Your task to perform on an android device: Search for seafood restaurants on Google Maps Image 0: 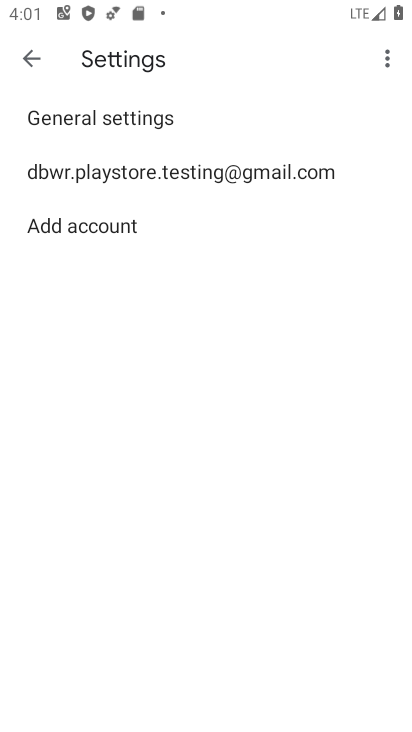
Step 0: press home button
Your task to perform on an android device: Search for seafood restaurants on Google Maps Image 1: 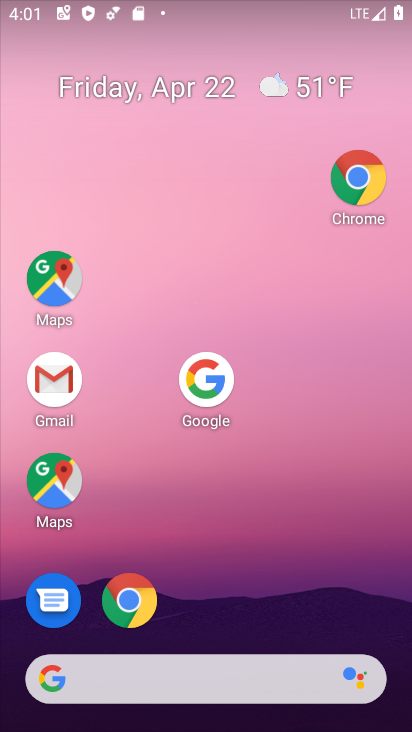
Step 1: drag from (285, 592) to (179, 66)
Your task to perform on an android device: Search for seafood restaurants on Google Maps Image 2: 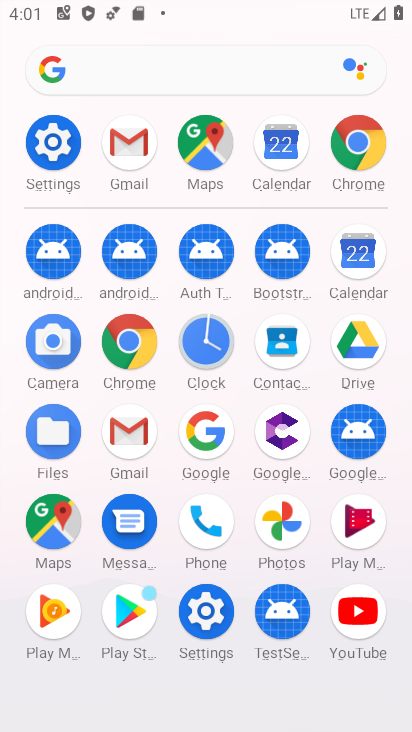
Step 2: drag from (181, 179) to (164, 0)
Your task to perform on an android device: Search for seafood restaurants on Google Maps Image 3: 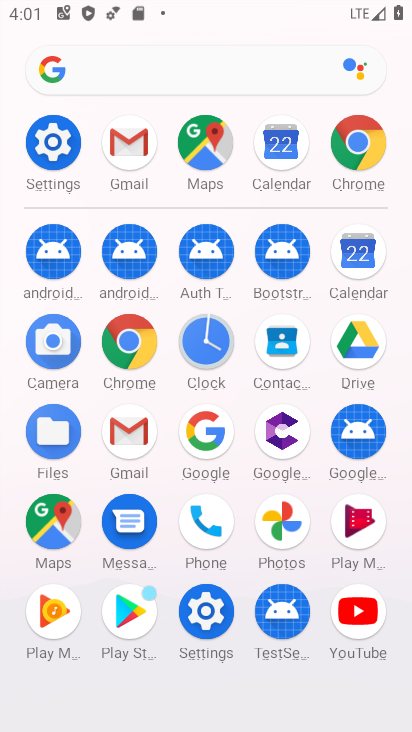
Step 3: click (34, 154)
Your task to perform on an android device: Search for seafood restaurants on Google Maps Image 4: 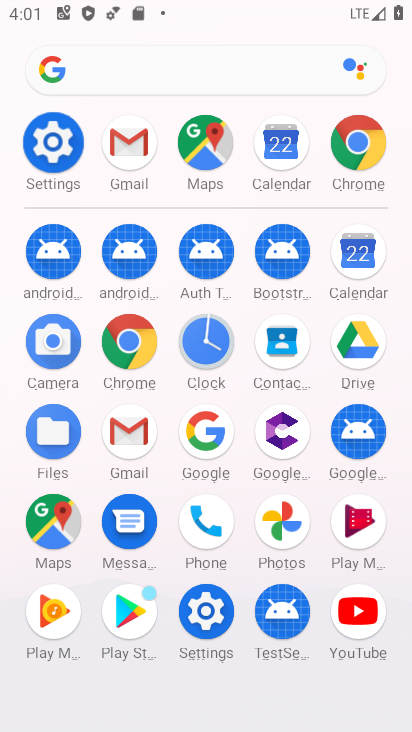
Step 4: click (34, 153)
Your task to perform on an android device: Search for seafood restaurants on Google Maps Image 5: 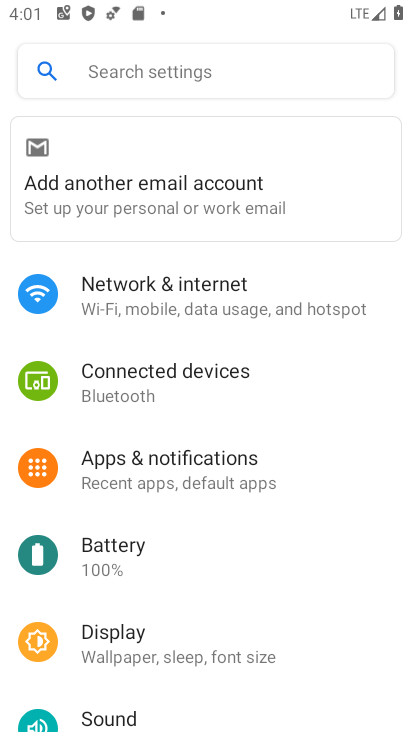
Step 5: press home button
Your task to perform on an android device: Search for seafood restaurants on Google Maps Image 6: 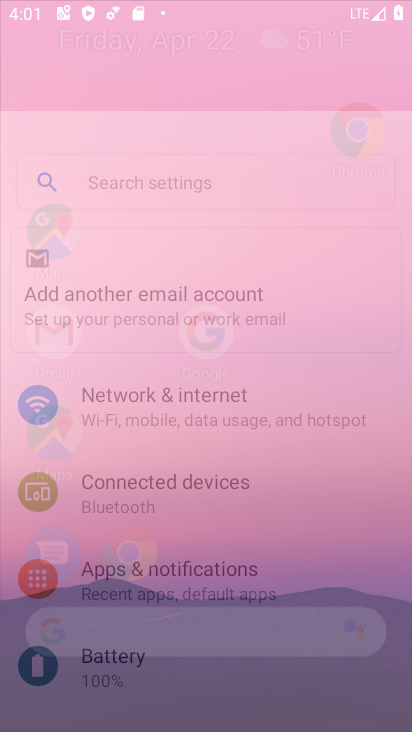
Step 6: press home button
Your task to perform on an android device: Search for seafood restaurants on Google Maps Image 7: 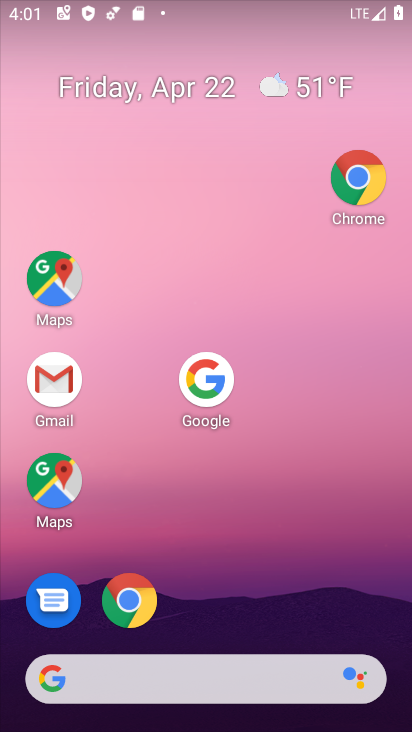
Step 7: drag from (230, 519) to (119, 102)
Your task to perform on an android device: Search for seafood restaurants on Google Maps Image 8: 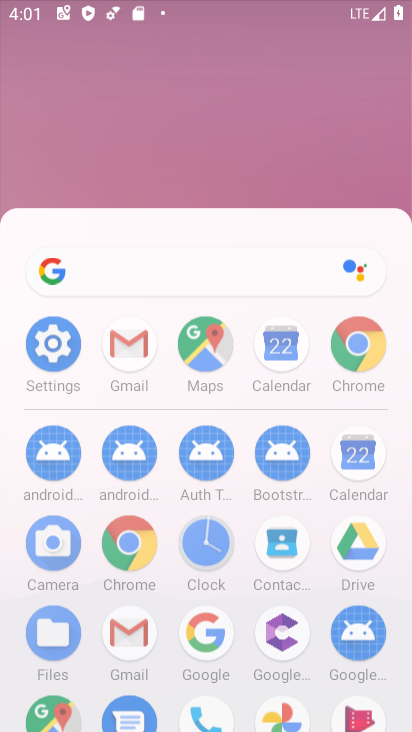
Step 8: drag from (167, 373) to (105, 38)
Your task to perform on an android device: Search for seafood restaurants on Google Maps Image 9: 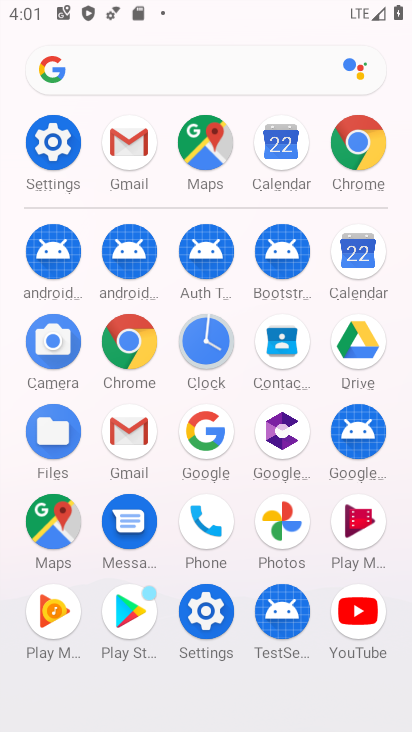
Step 9: click (209, 137)
Your task to perform on an android device: Search for seafood restaurants on Google Maps Image 10: 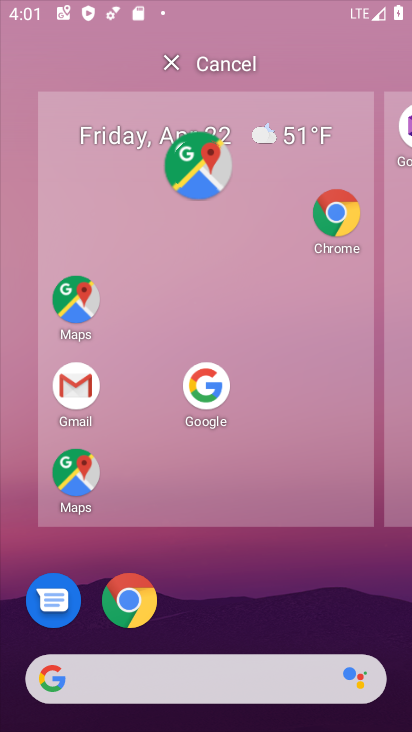
Step 10: click (199, 158)
Your task to perform on an android device: Search for seafood restaurants on Google Maps Image 11: 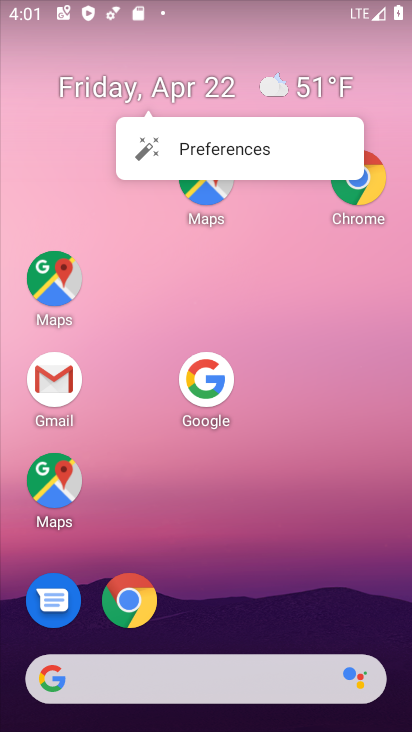
Step 11: drag from (304, 561) to (126, 6)
Your task to perform on an android device: Search for seafood restaurants on Google Maps Image 12: 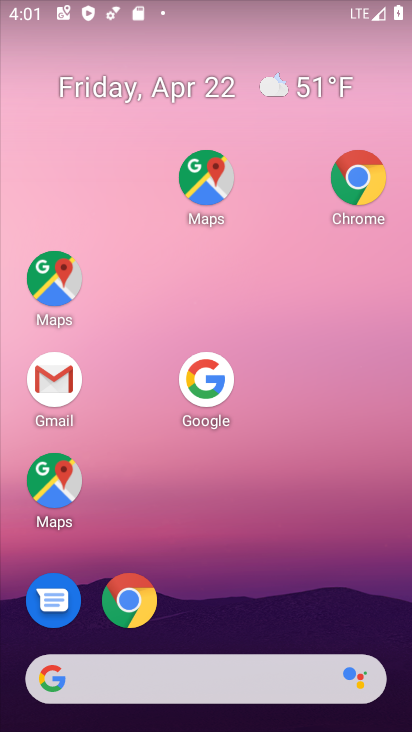
Step 12: drag from (245, 420) to (126, 39)
Your task to perform on an android device: Search for seafood restaurants on Google Maps Image 13: 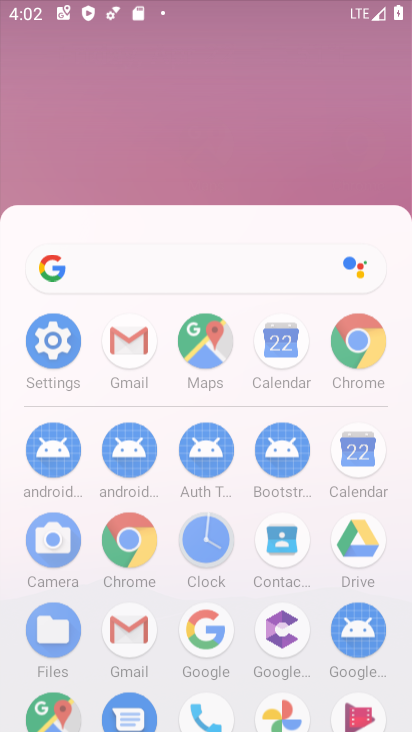
Step 13: drag from (231, 499) to (170, 4)
Your task to perform on an android device: Search for seafood restaurants on Google Maps Image 14: 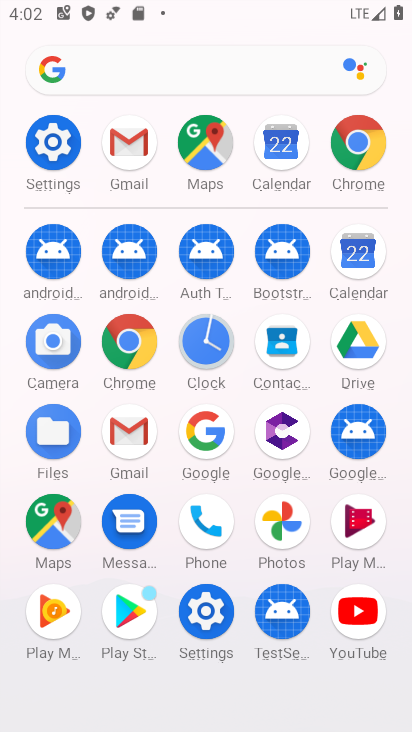
Step 14: click (193, 157)
Your task to perform on an android device: Search for seafood restaurants on Google Maps Image 15: 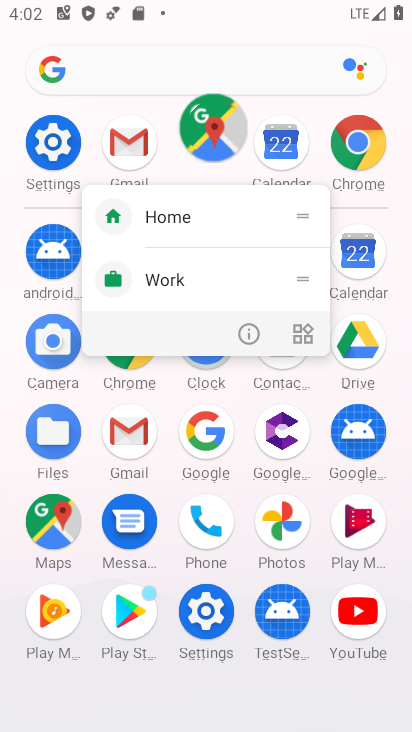
Step 15: click (201, 142)
Your task to perform on an android device: Search for seafood restaurants on Google Maps Image 16: 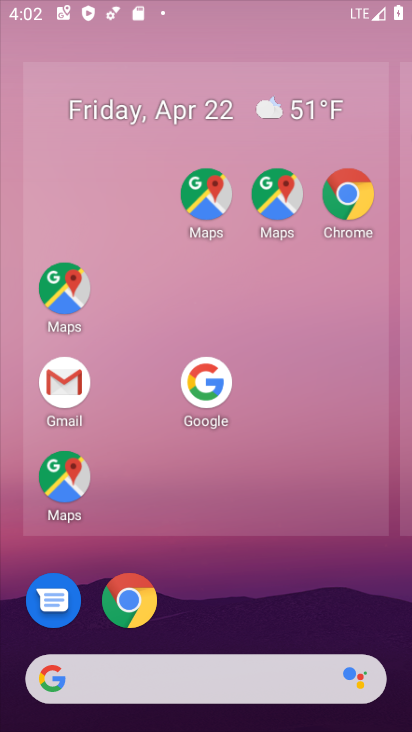
Step 16: click (200, 145)
Your task to perform on an android device: Search for seafood restaurants on Google Maps Image 17: 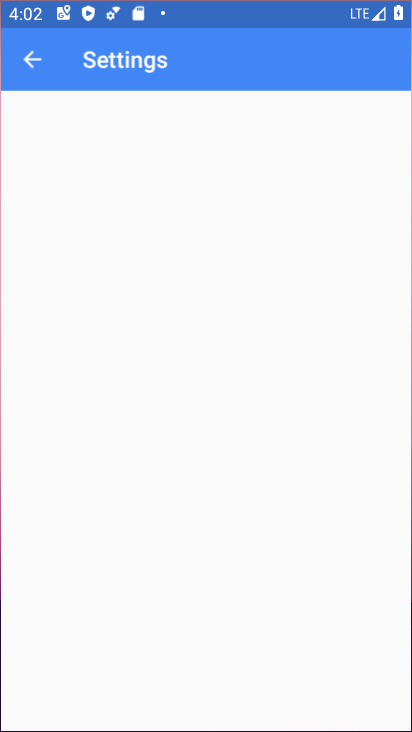
Step 17: drag from (284, 567) to (158, 8)
Your task to perform on an android device: Search for seafood restaurants on Google Maps Image 18: 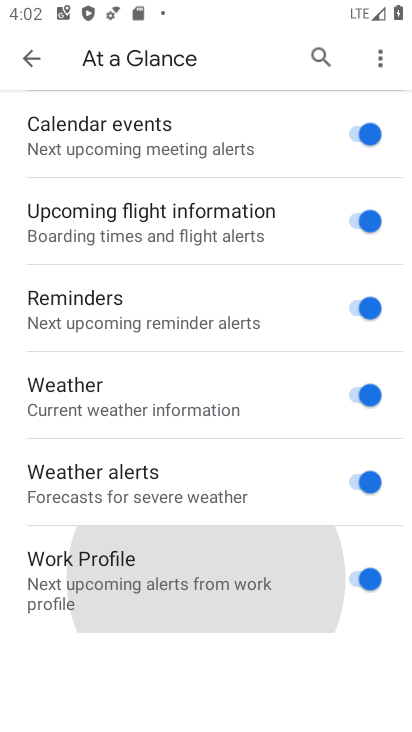
Step 18: drag from (351, 483) to (111, 7)
Your task to perform on an android device: Search for seafood restaurants on Google Maps Image 19: 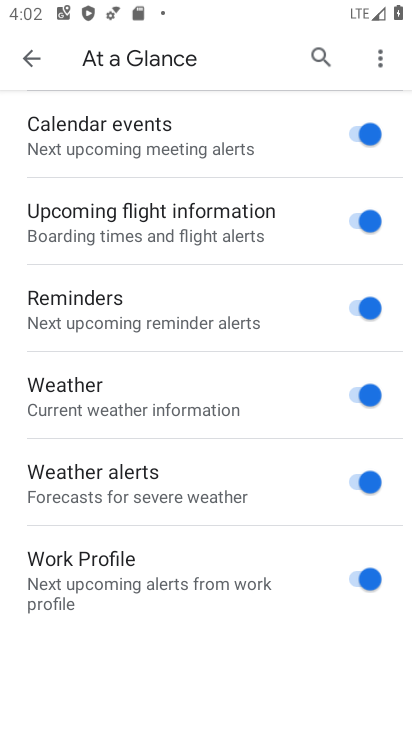
Step 19: click (26, 49)
Your task to perform on an android device: Search for seafood restaurants on Google Maps Image 20: 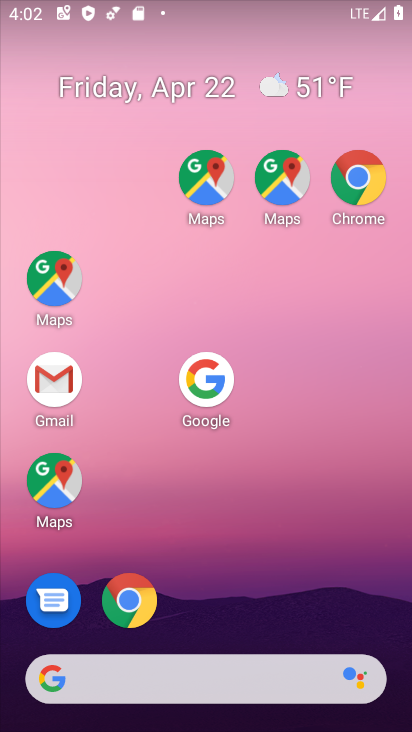
Step 20: drag from (292, 595) to (219, 42)
Your task to perform on an android device: Search for seafood restaurants on Google Maps Image 21: 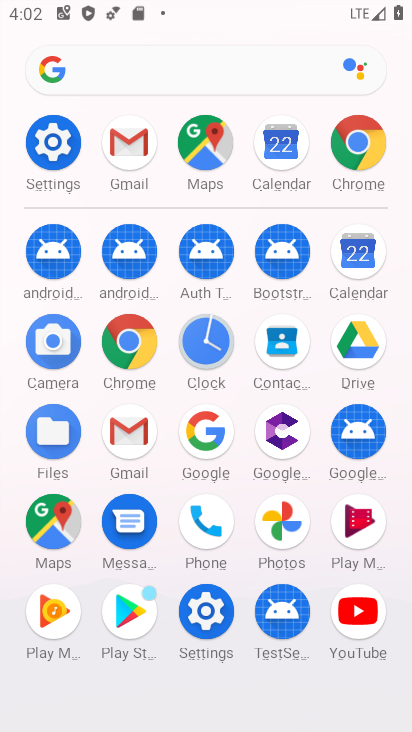
Step 21: click (202, 158)
Your task to perform on an android device: Search for seafood restaurants on Google Maps Image 22: 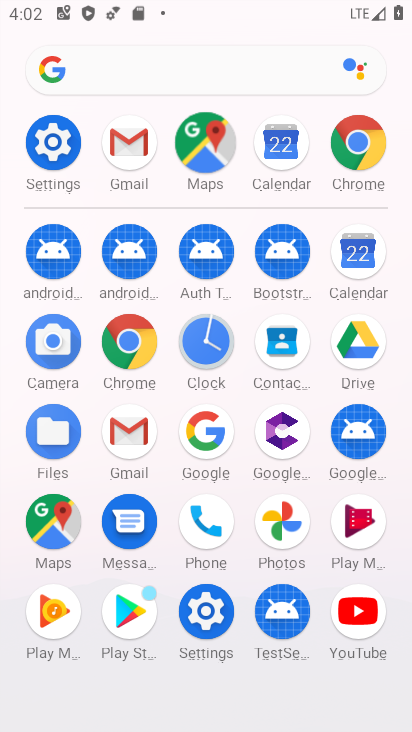
Step 22: click (202, 158)
Your task to perform on an android device: Search for seafood restaurants on Google Maps Image 23: 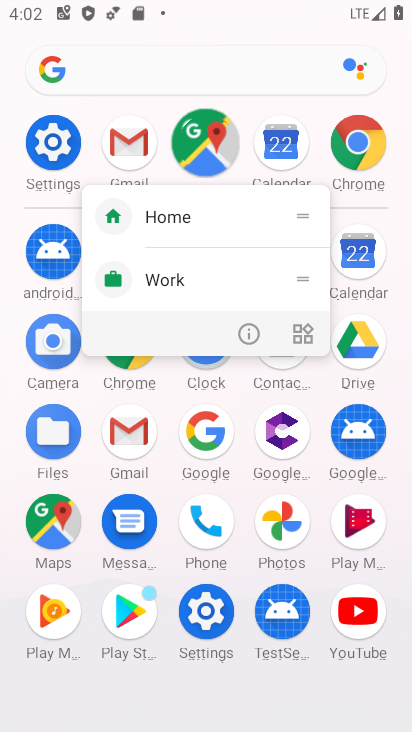
Step 23: click (202, 158)
Your task to perform on an android device: Search for seafood restaurants on Google Maps Image 24: 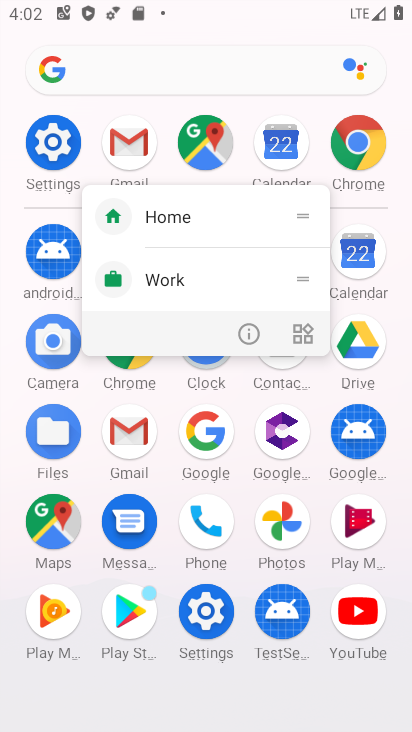
Step 24: click (202, 158)
Your task to perform on an android device: Search for seafood restaurants on Google Maps Image 25: 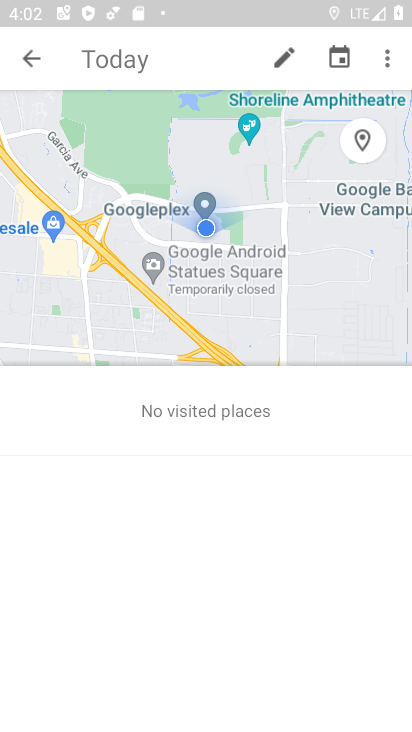
Step 25: click (29, 64)
Your task to perform on an android device: Search for seafood restaurants on Google Maps Image 26: 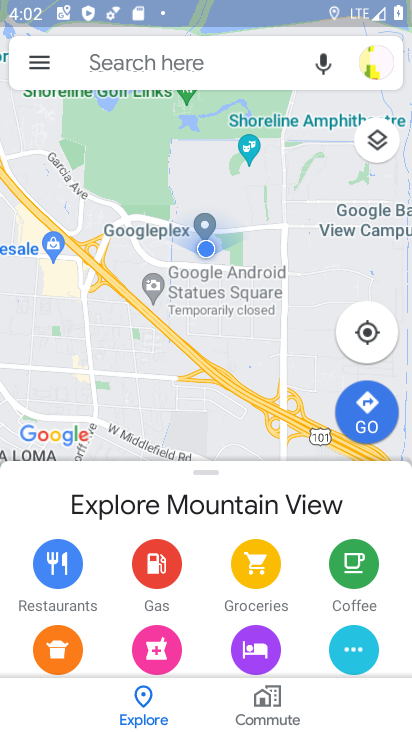
Step 26: click (47, 70)
Your task to perform on an android device: Search for seafood restaurants on Google Maps Image 27: 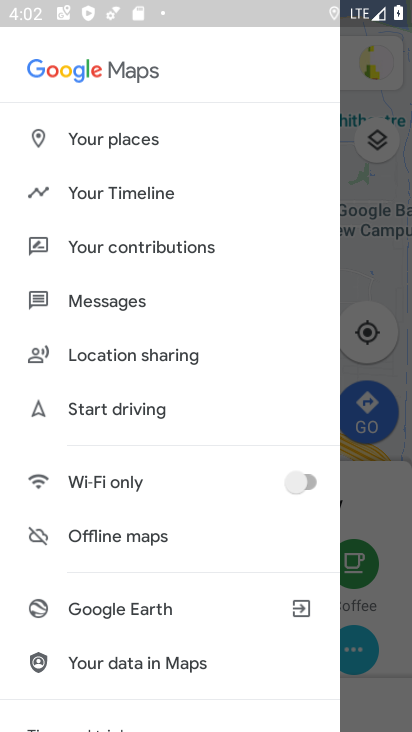
Step 27: click (140, 200)
Your task to perform on an android device: Search for seafood restaurants on Google Maps Image 28: 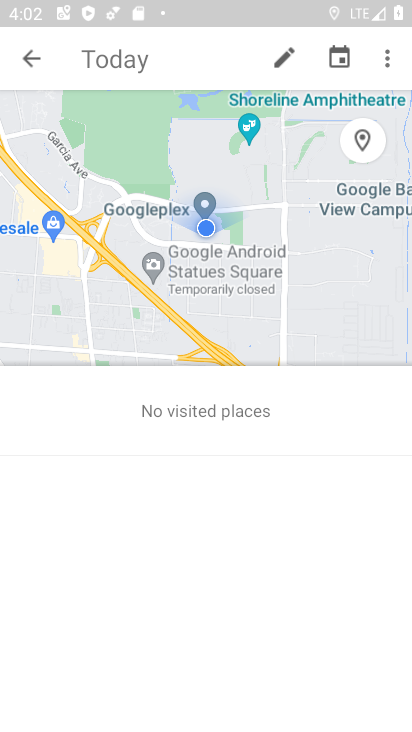
Step 28: click (35, 54)
Your task to perform on an android device: Search for seafood restaurants on Google Maps Image 29: 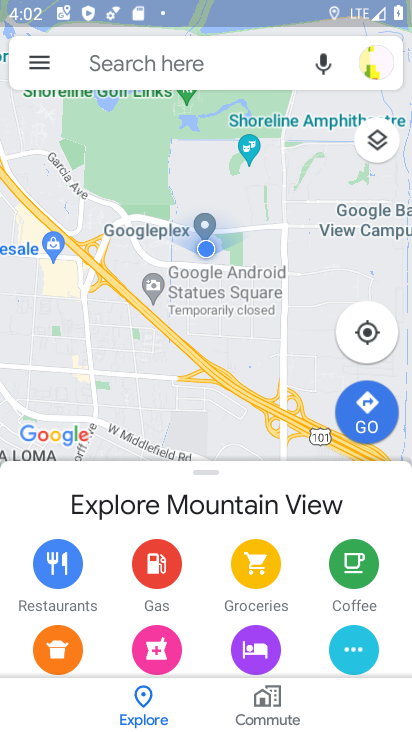
Step 29: click (91, 63)
Your task to perform on an android device: Search for seafood restaurants on Google Maps Image 30: 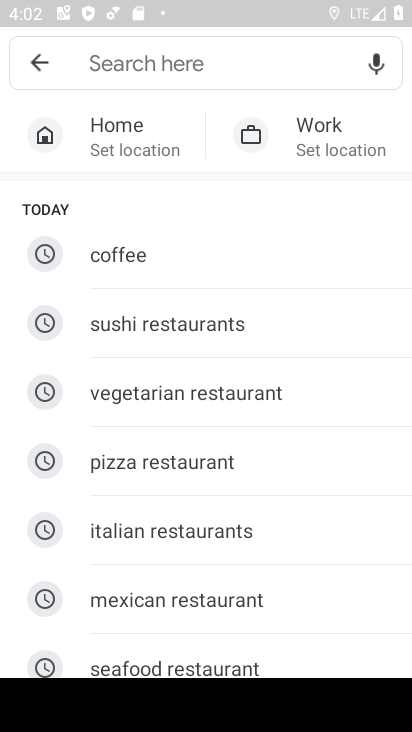
Step 30: click (219, 663)
Your task to perform on an android device: Search for seafood restaurants on Google Maps Image 31: 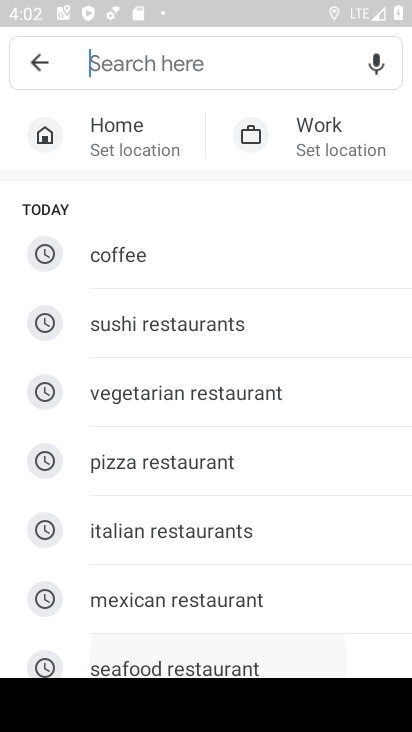
Step 31: click (220, 664)
Your task to perform on an android device: Search for seafood restaurants on Google Maps Image 32: 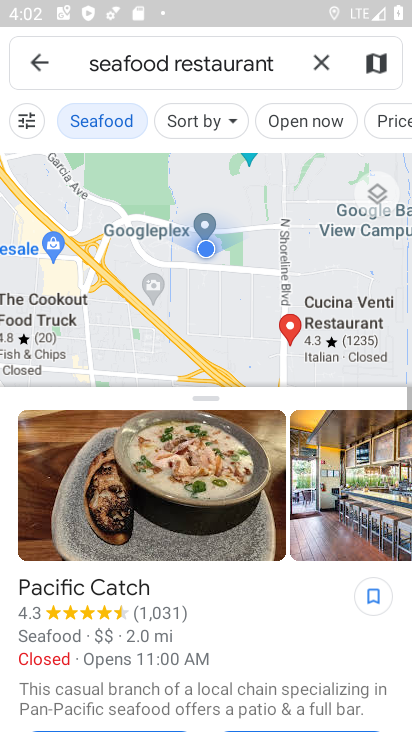
Step 32: task complete